Your task to perform on an android device: toggle notification dots Image 0: 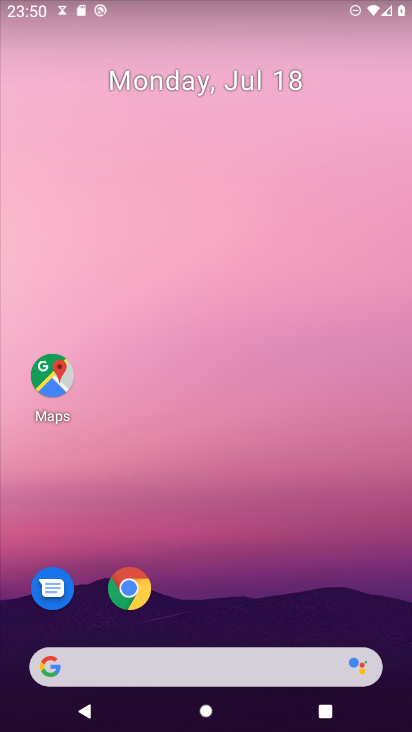
Step 0: press home button
Your task to perform on an android device: toggle notification dots Image 1: 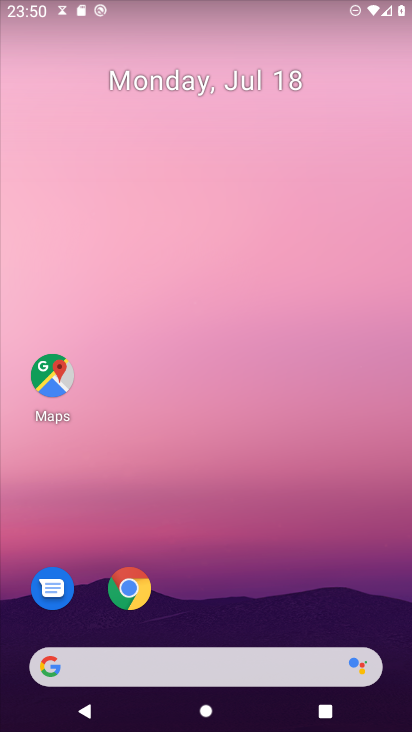
Step 1: drag from (248, 585) to (268, 91)
Your task to perform on an android device: toggle notification dots Image 2: 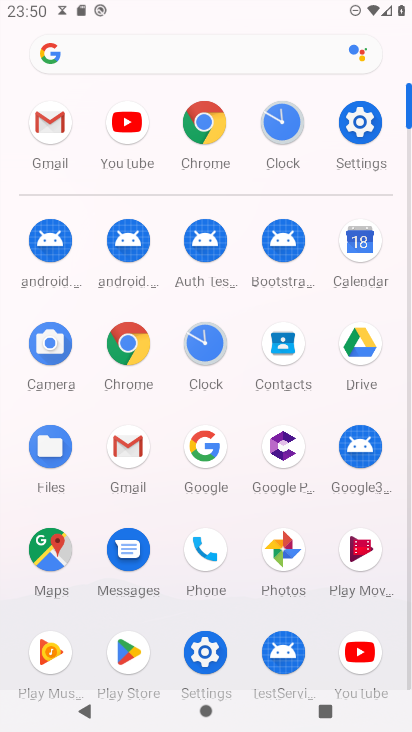
Step 2: click (351, 120)
Your task to perform on an android device: toggle notification dots Image 3: 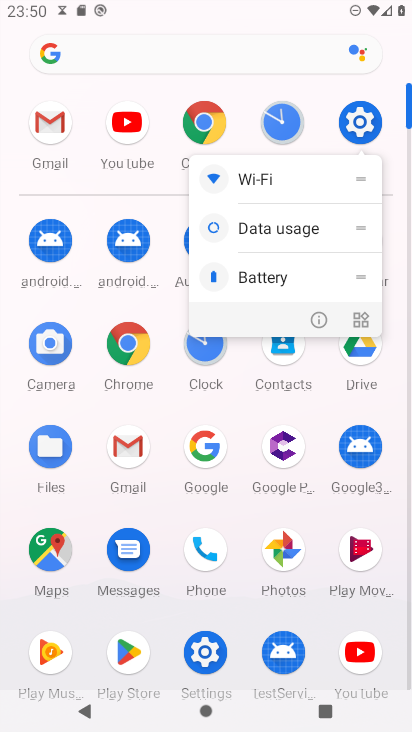
Step 3: click (362, 116)
Your task to perform on an android device: toggle notification dots Image 4: 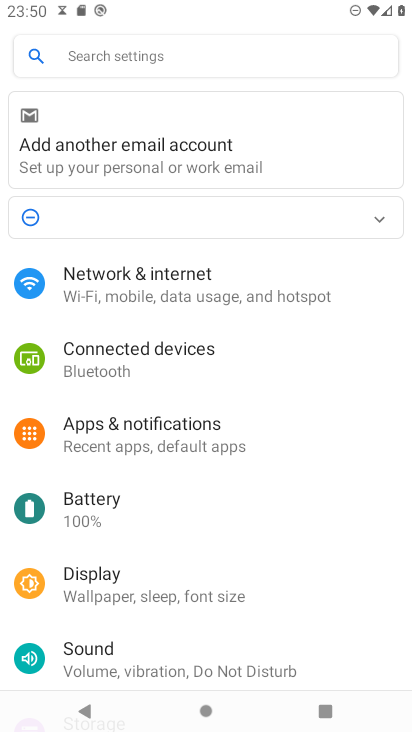
Step 4: click (185, 427)
Your task to perform on an android device: toggle notification dots Image 5: 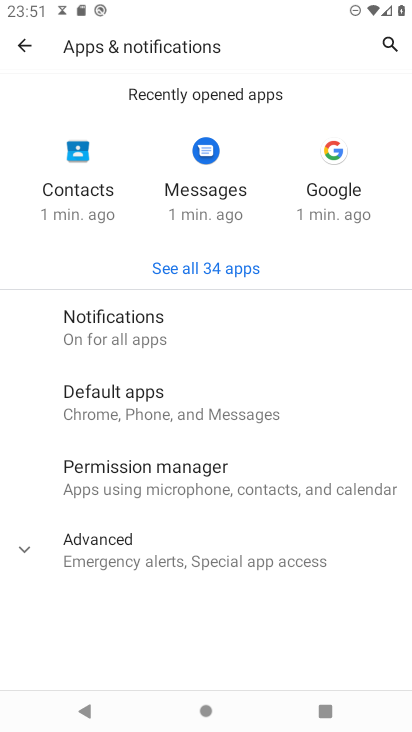
Step 5: click (179, 321)
Your task to perform on an android device: toggle notification dots Image 6: 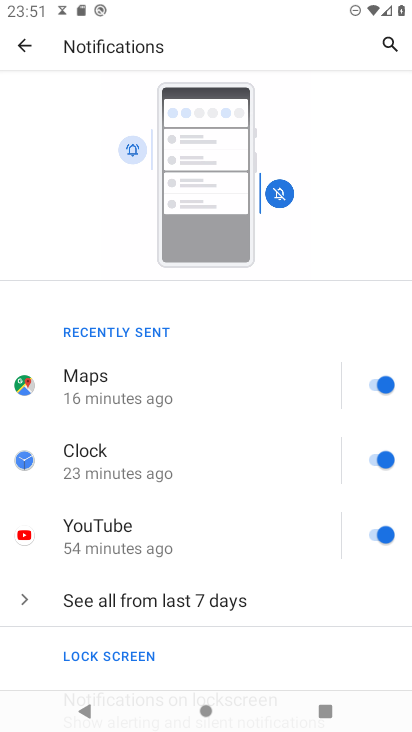
Step 6: drag from (243, 645) to (279, 256)
Your task to perform on an android device: toggle notification dots Image 7: 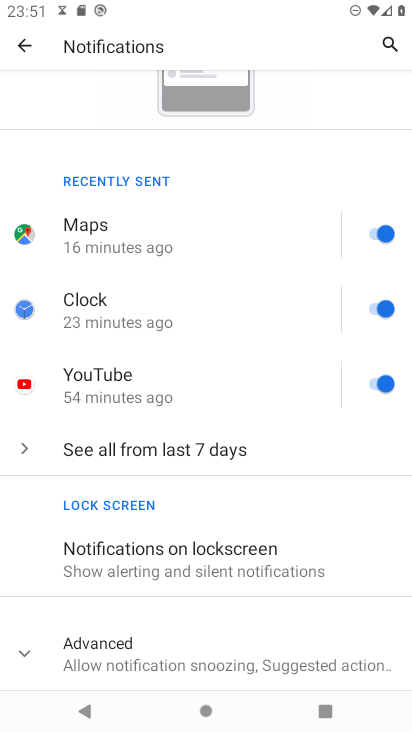
Step 7: drag from (159, 607) to (201, 292)
Your task to perform on an android device: toggle notification dots Image 8: 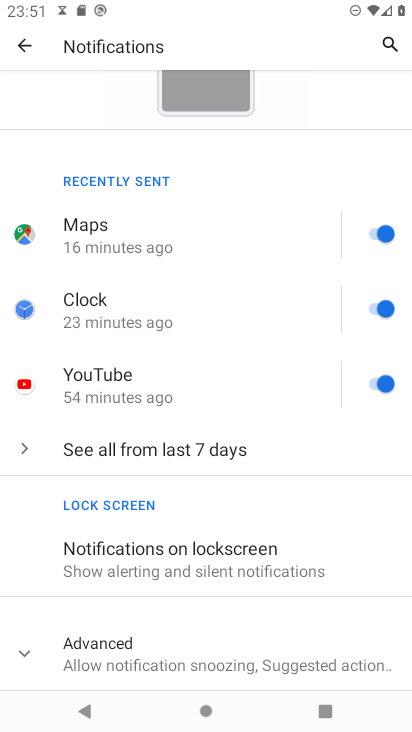
Step 8: click (23, 655)
Your task to perform on an android device: toggle notification dots Image 9: 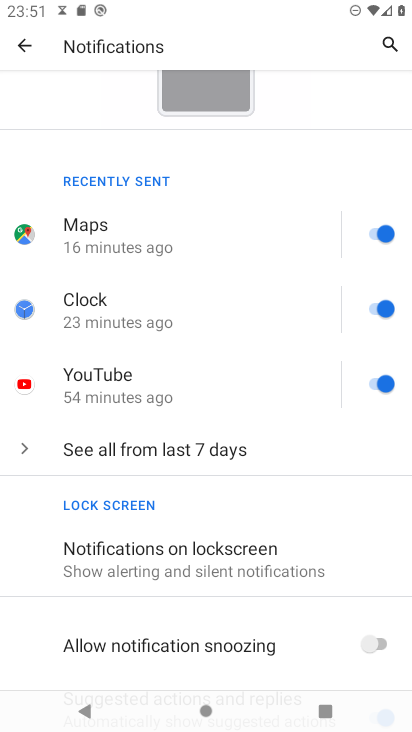
Step 9: drag from (214, 606) to (248, 340)
Your task to perform on an android device: toggle notification dots Image 10: 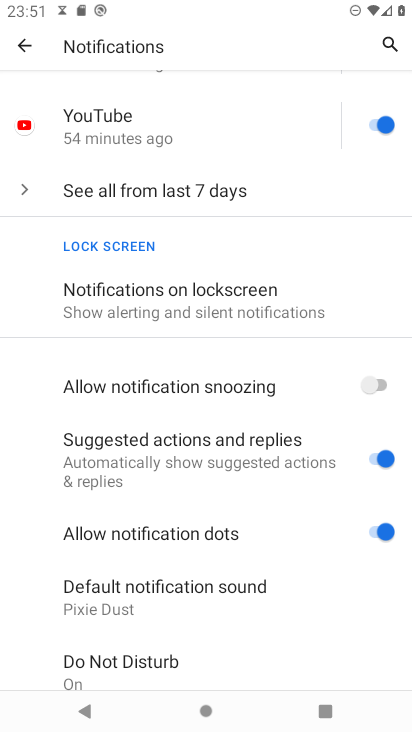
Step 10: click (376, 528)
Your task to perform on an android device: toggle notification dots Image 11: 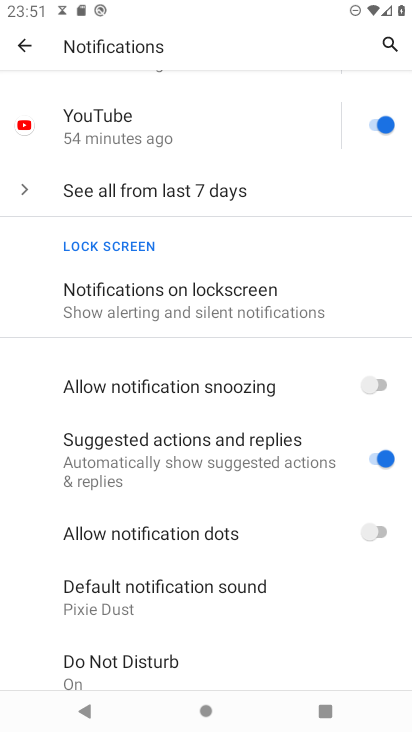
Step 11: task complete